Your task to perform on an android device: Go to display settings Image 0: 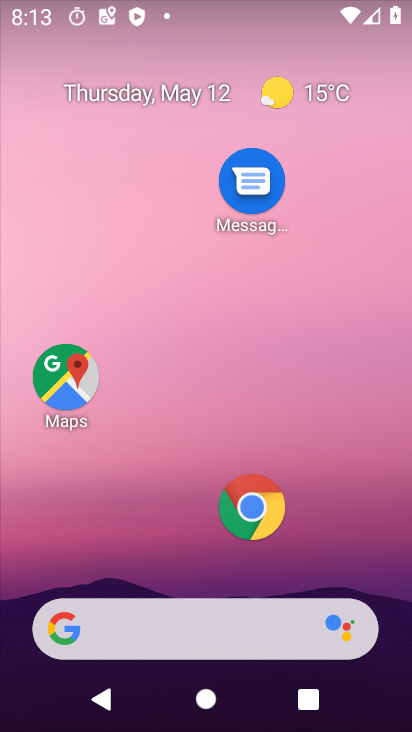
Step 0: drag from (163, 556) to (142, 152)
Your task to perform on an android device: Go to display settings Image 1: 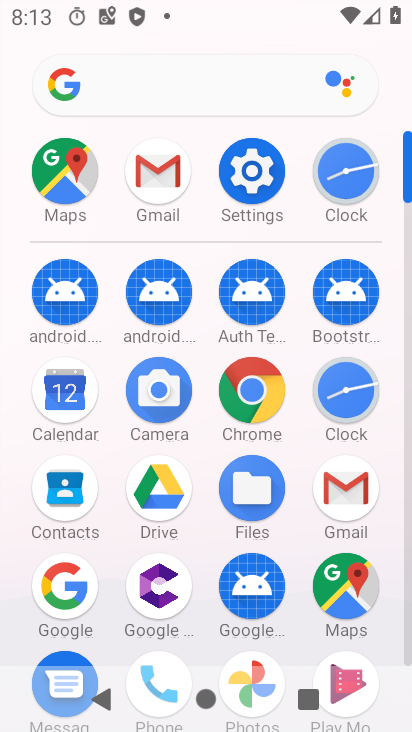
Step 1: click (245, 162)
Your task to perform on an android device: Go to display settings Image 2: 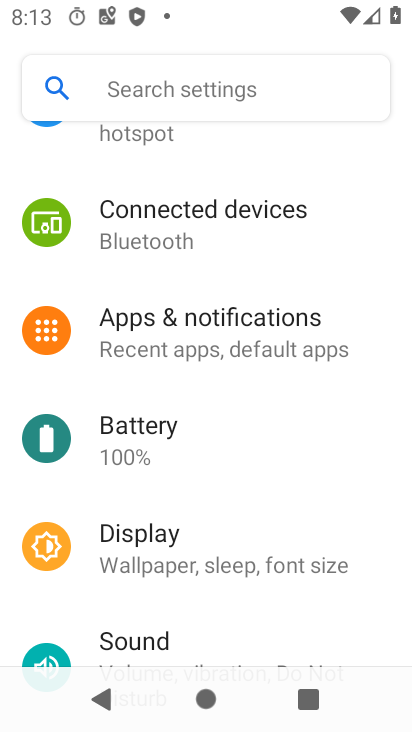
Step 2: click (175, 535)
Your task to perform on an android device: Go to display settings Image 3: 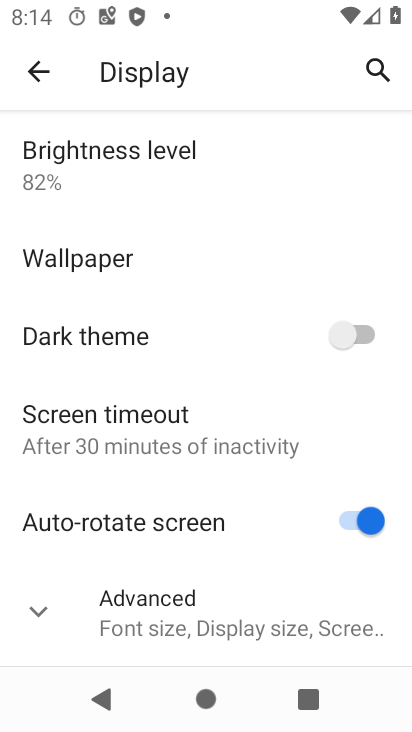
Step 3: task complete